Your task to perform on an android device: Go to privacy settings Image 0: 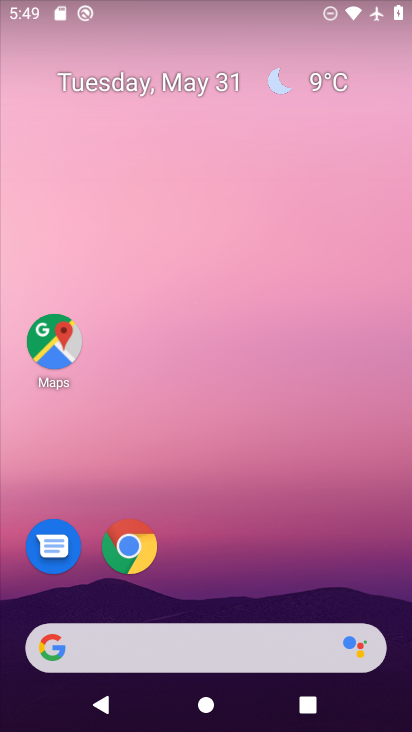
Step 0: drag from (292, 571) to (198, 39)
Your task to perform on an android device: Go to privacy settings Image 1: 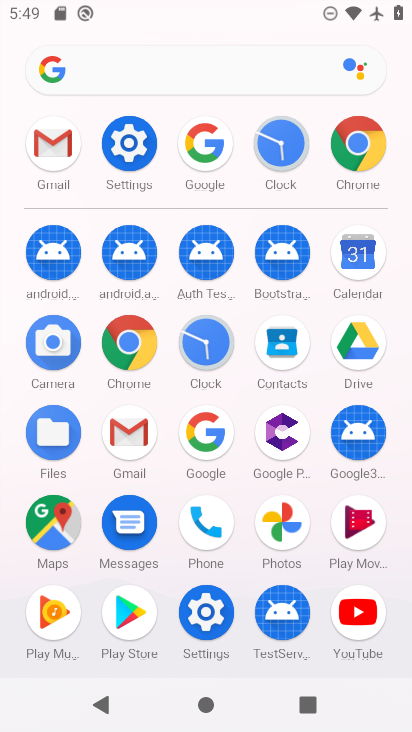
Step 1: click (136, 142)
Your task to perform on an android device: Go to privacy settings Image 2: 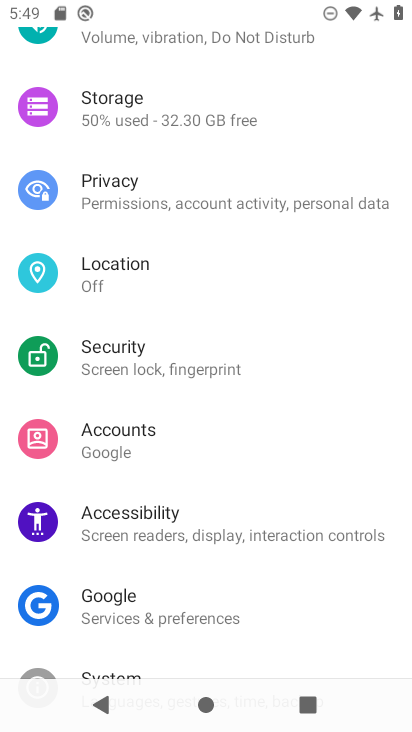
Step 2: click (161, 189)
Your task to perform on an android device: Go to privacy settings Image 3: 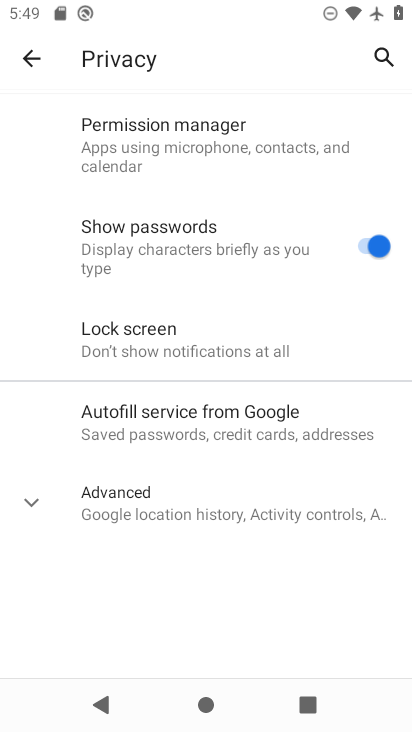
Step 3: task complete